Your task to perform on an android device: Open Yahoo.com Image 0: 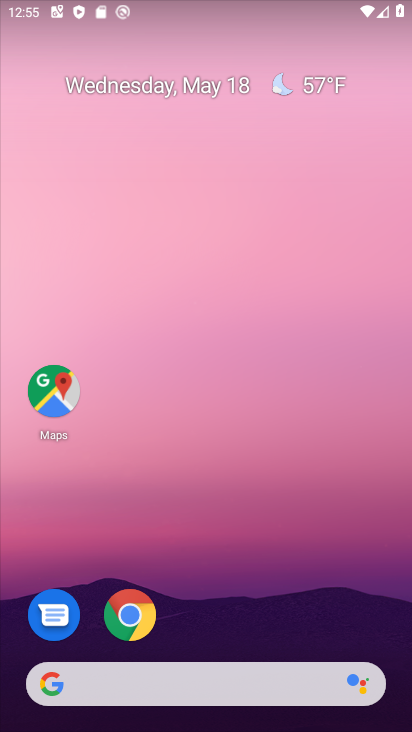
Step 0: drag from (379, 630) to (283, 0)
Your task to perform on an android device: Open Yahoo.com Image 1: 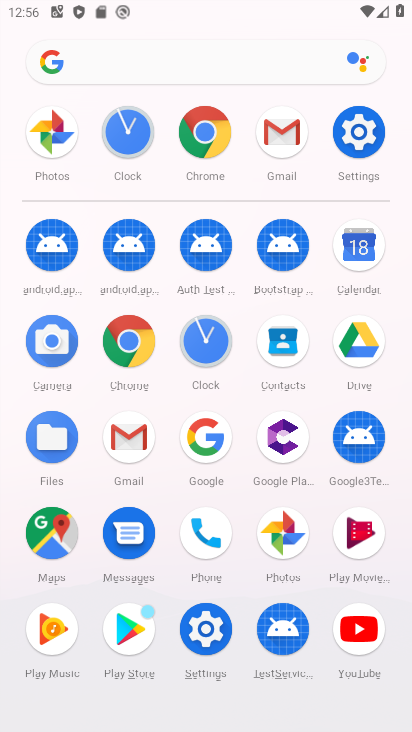
Step 1: click (138, 332)
Your task to perform on an android device: Open Yahoo.com Image 2: 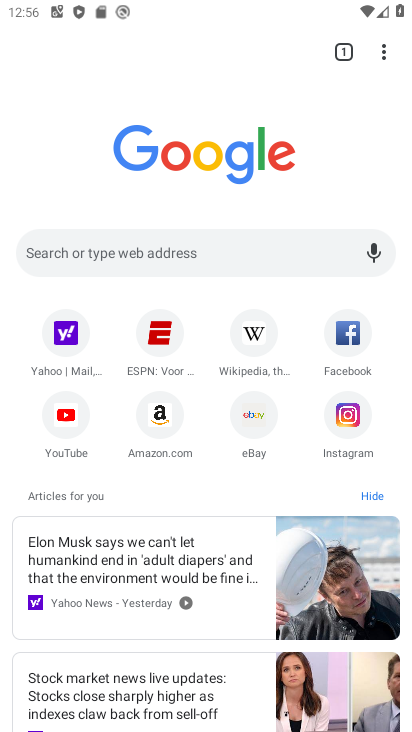
Step 2: click (71, 343)
Your task to perform on an android device: Open Yahoo.com Image 3: 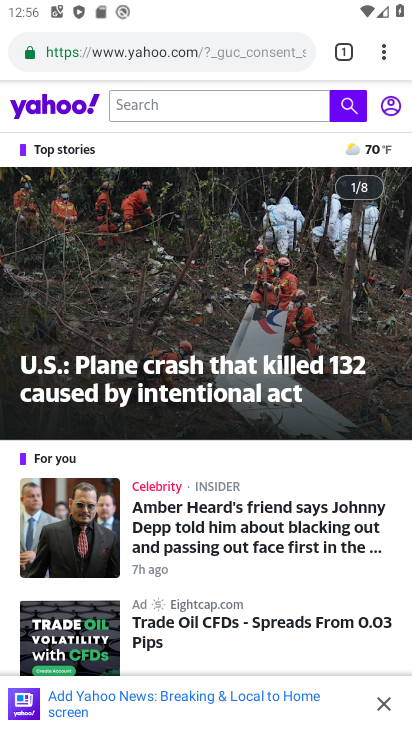
Step 3: task complete